Your task to perform on an android device: Toggle the flashlight Image 0: 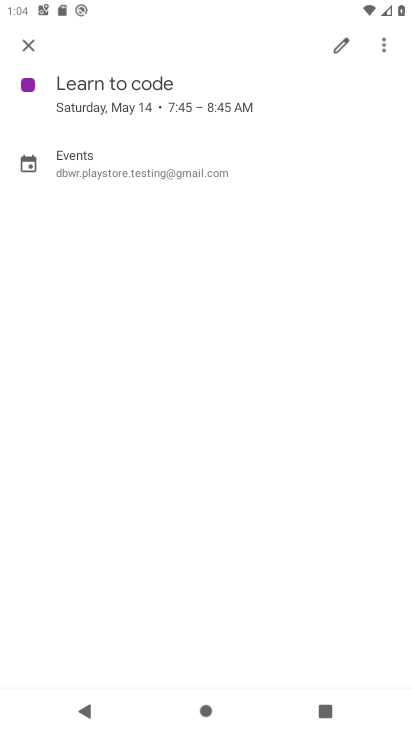
Step 0: press home button
Your task to perform on an android device: Toggle the flashlight Image 1: 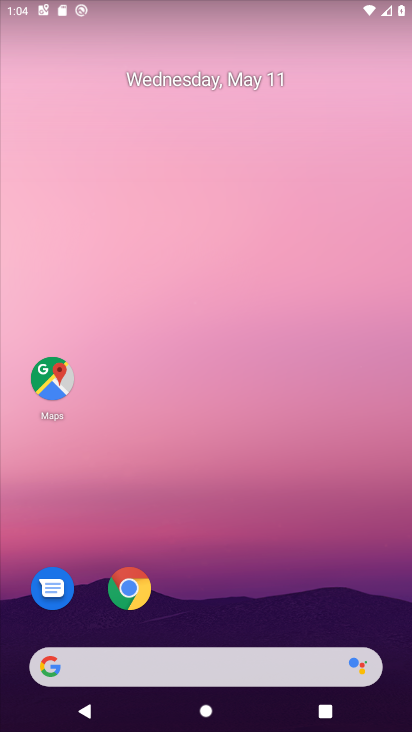
Step 1: drag from (280, 12) to (315, 484)
Your task to perform on an android device: Toggle the flashlight Image 2: 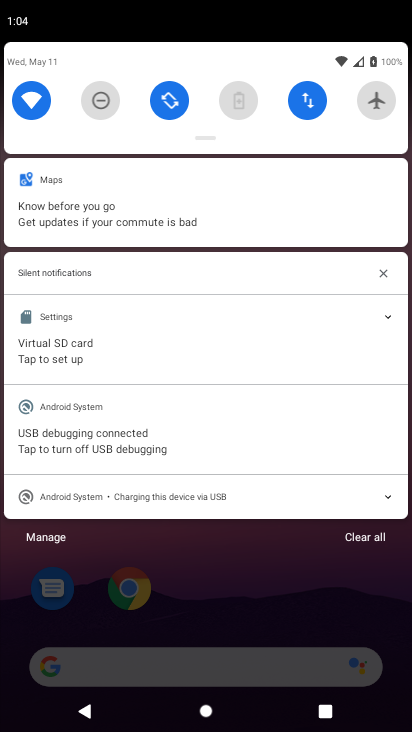
Step 2: drag from (138, 122) to (198, 417)
Your task to perform on an android device: Toggle the flashlight Image 3: 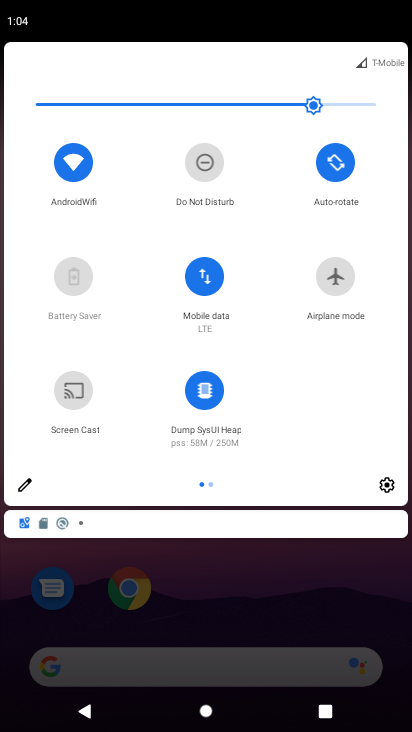
Step 3: drag from (360, 319) to (8, 370)
Your task to perform on an android device: Toggle the flashlight Image 4: 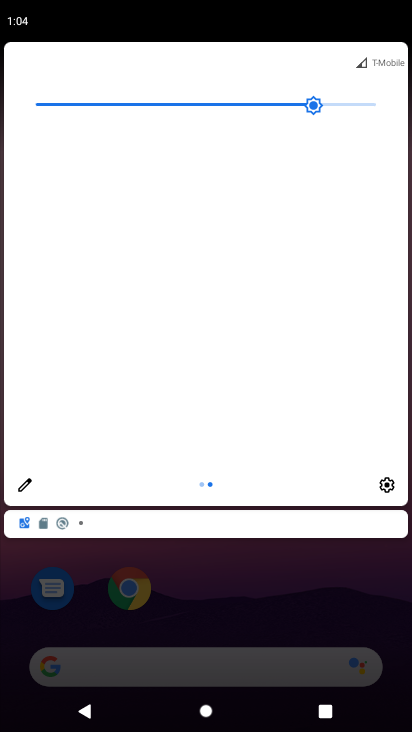
Step 4: click (23, 484)
Your task to perform on an android device: Toggle the flashlight Image 5: 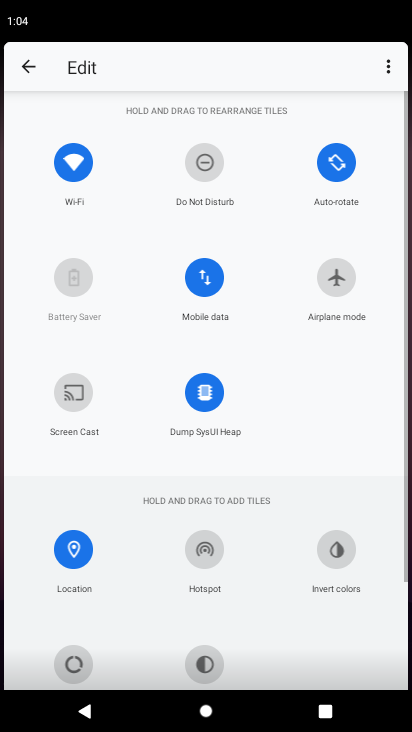
Step 5: task complete